Your task to perform on an android device: Go to Yahoo.com Image 0: 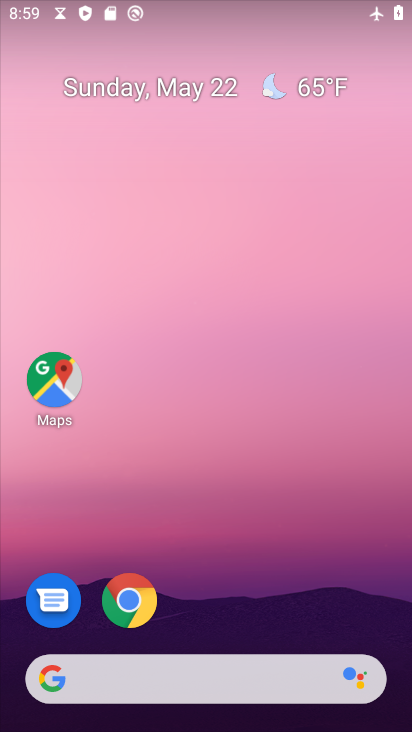
Step 0: click (124, 608)
Your task to perform on an android device: Go to Yahoo.com Image 1: 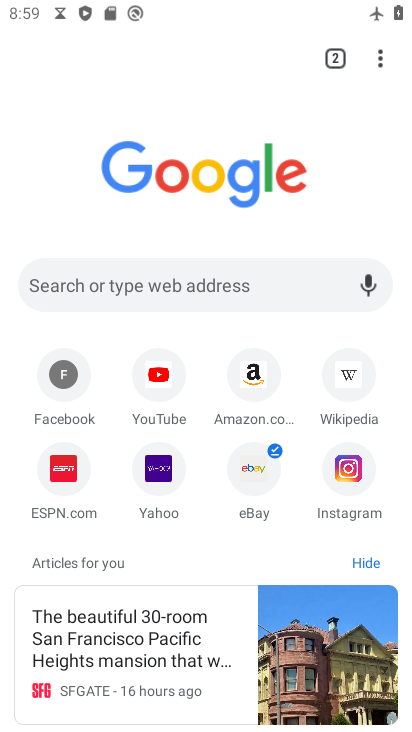
Step 1: click (151, 473)
Your task to perform on an android device: Go to Yahoo.com Image 2: 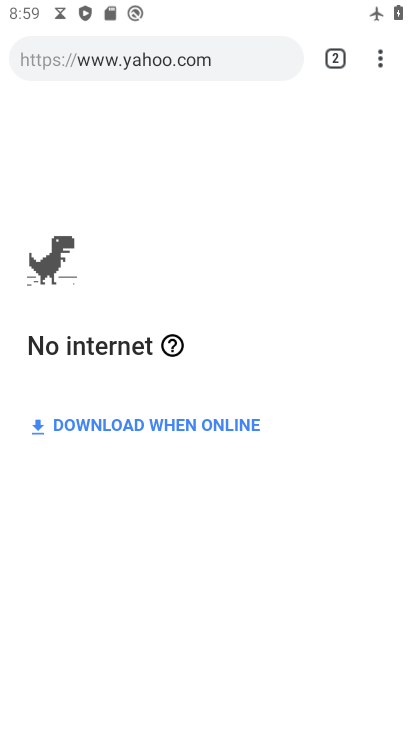
Step 2: task complete